Your task to perform on an android device: change your default location settings in chrome Image 0: 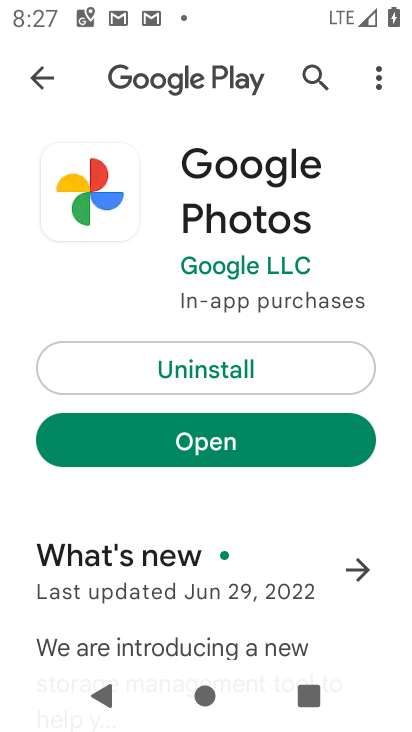
Step 0: press home button
Your task to perform on an android device: change your default location settings in chrome Image 1: 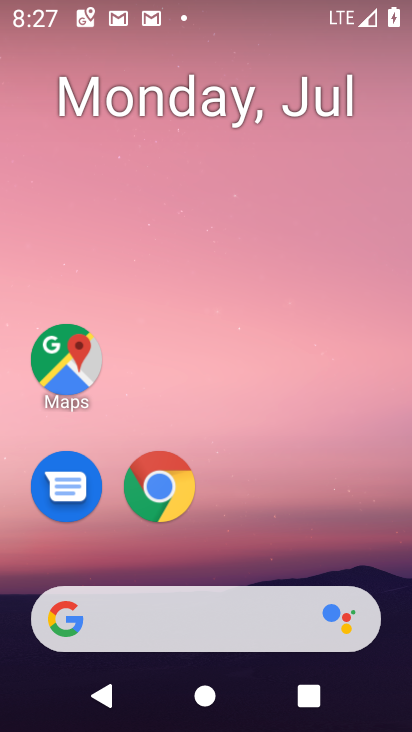
Step 1: drag from (370, 525) to (346, 133)
Your task to perform on an android device: change your default location settings in chrome Image 2: 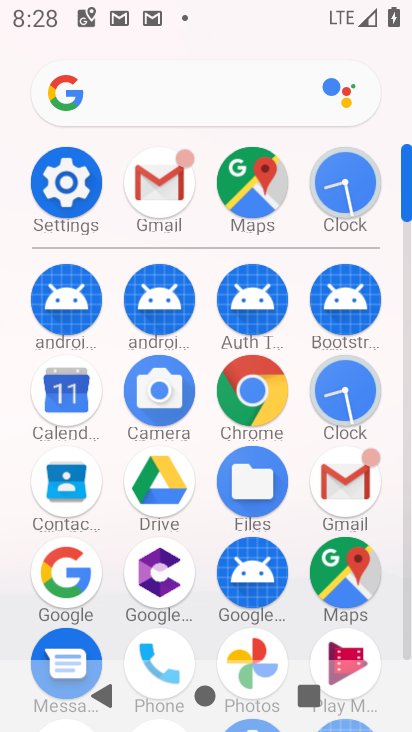
Step 2: click (266, 378)
Your task to perform on an android device: change your default location settings in chrome Image 3: 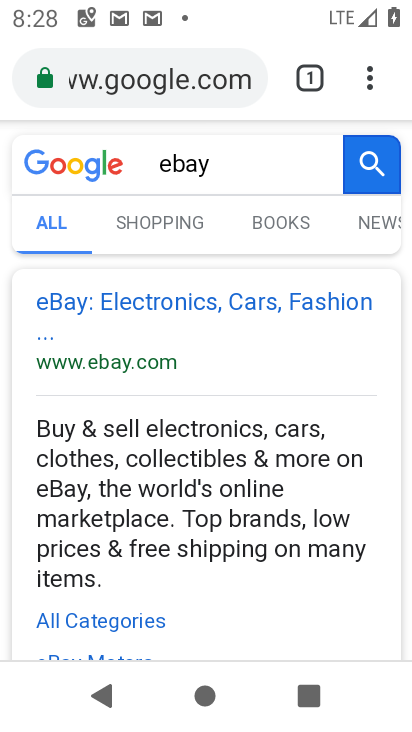
Step 3: click (369, 82)
Your task to perform on an android device: change your default location settings in chrome Image 4: 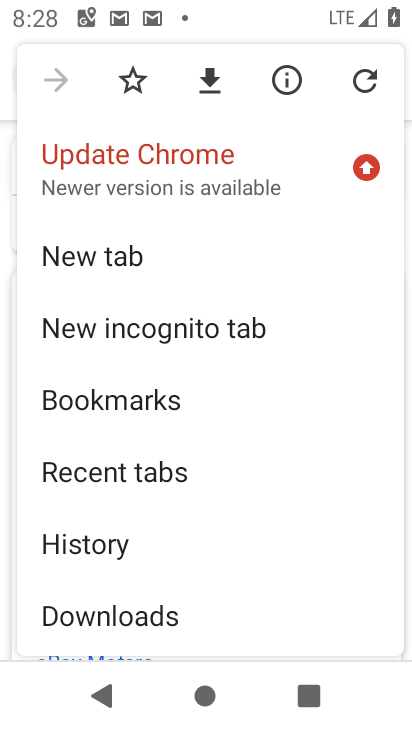
Step 4: drag from (298, 414) to (304, 324)
Your task to perform on an android device: change your default location settings in chrome Image 5: 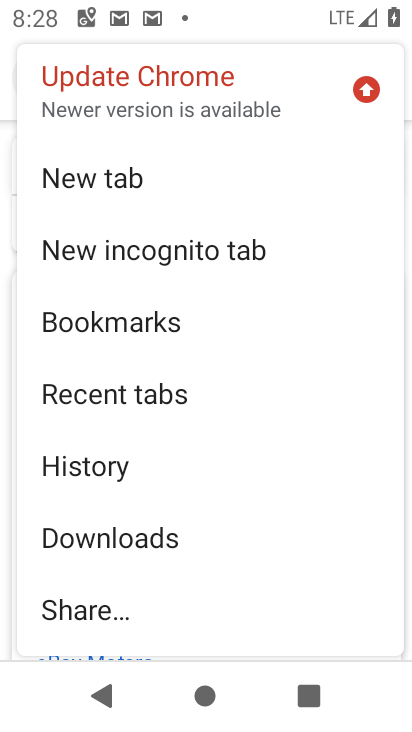
Step 5: drag from (298, 454) to (301, 355)
Your task to perform on an android device: change your default location settings in chrome Image 6: 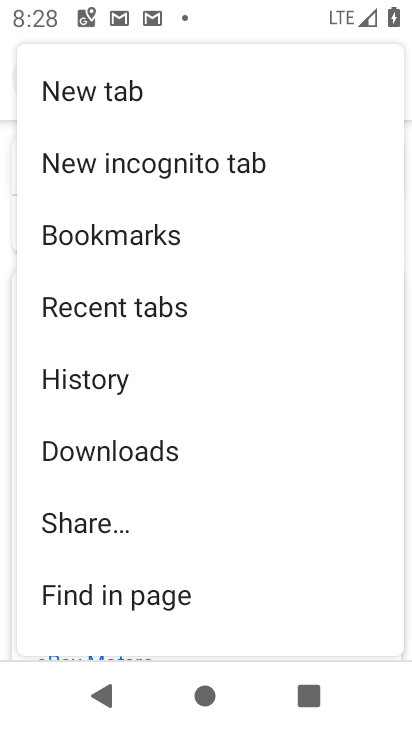
Step 6: drag from (299, 439) to (306, 326)
Your task to perform on an android device: change your default location settings in chrome Image 7: 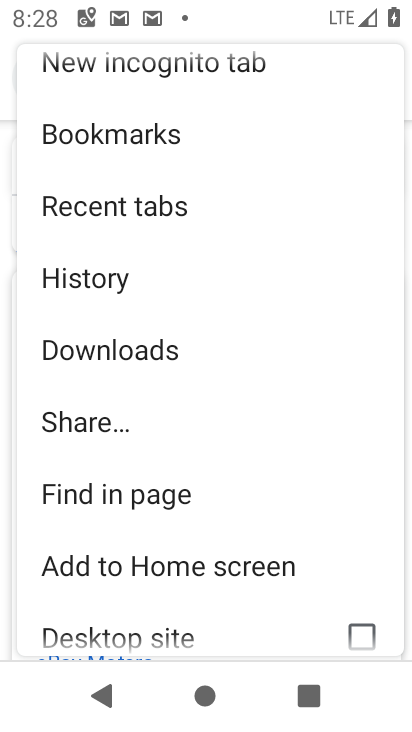
Step 7: drag from (308, 440) to (307, 357)
Your task to perform on an android device: change your default location settings in chrome Image 8: 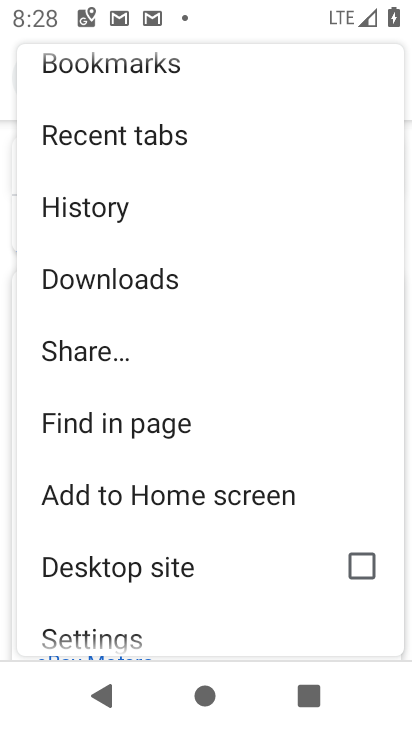
Step 8: drag from (299, 467) to (307, 339)
Your task to perform on an android device: change your default location settings in chrome Image 9: 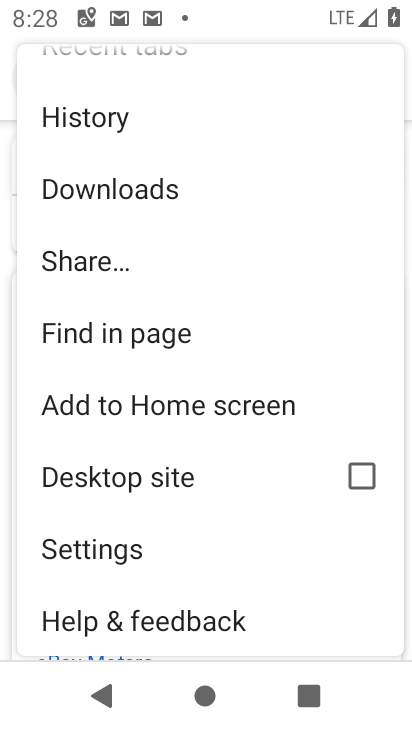
Step 9: drag from (277, 494) to (282, 378)
Your task to perform on an android device: change your default location settings in chrome Image 10: 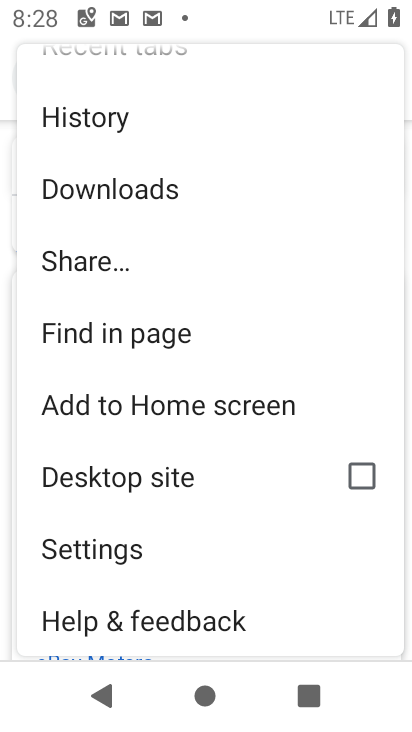
Step 10: click (171, 564)
Your task to perform on an android device: change your default location settings in chrome Image 11: 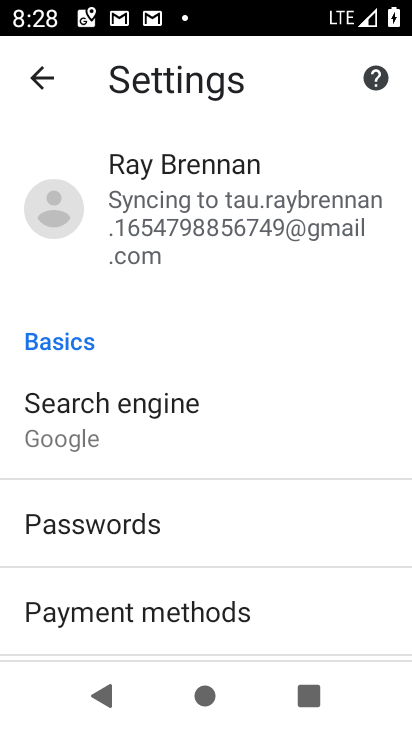
Step 11: drag from (305, 509) to (312, 371)
Your task to perform on an android device: change your default location settings in chrome Image 12: 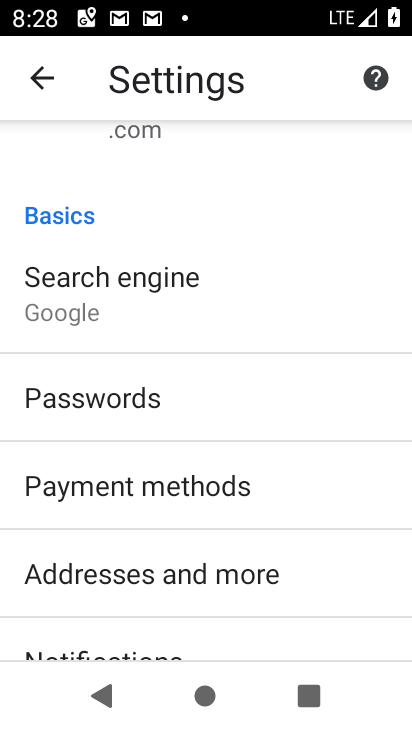
Step 12: drag from (329, 515) to (324, 357)
Your task to perform on an android device: change your default location settings in chrome Image 13: 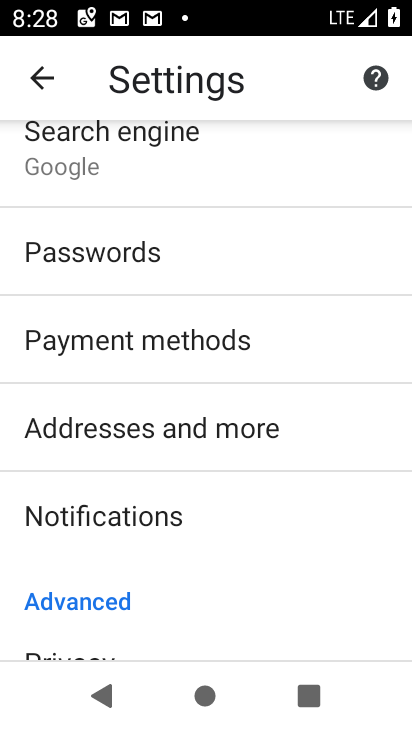
Step 13: drag from (325, 547) to (325, 395)
Your task to perform on an android device: change your default location settings in chrome Image 14: 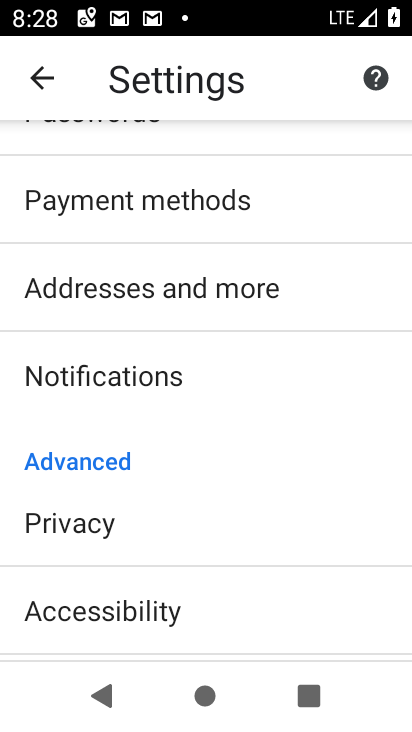
Step 14: drag from (334, 520) to (338, 397)
Your task to perform on an android device: change your default location settings in chrome Image 15: 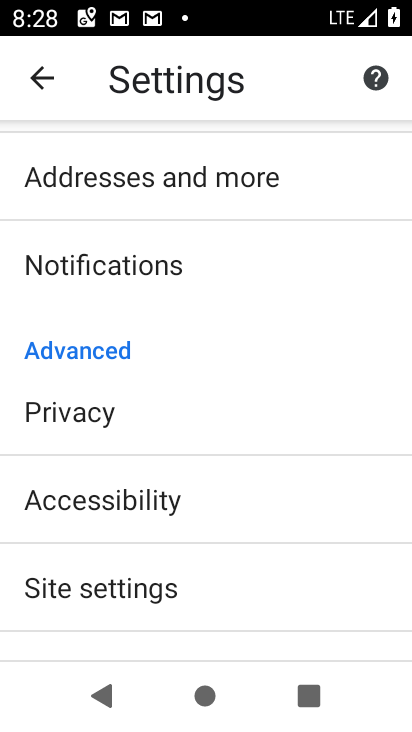
Step 15: drag from (334, 550) to (330, 348)
Your task to perform on an android device: change your default location settings in chrome Image 16: 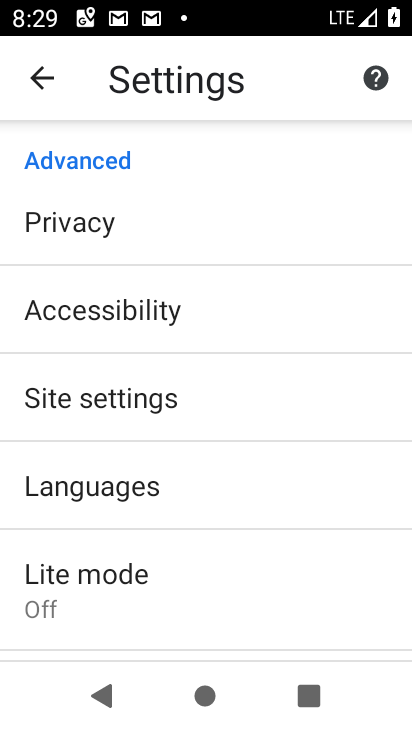
Step 16: drag from (328, 566) to (303, 362)
Your task to perform on an android device: change your default location settings in chrome Image 17: 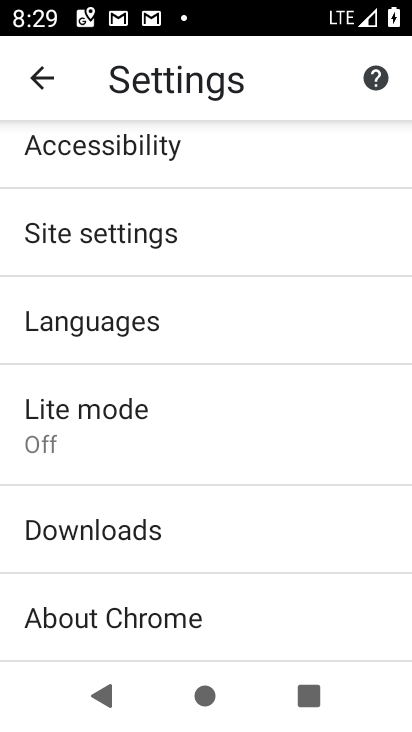
Step 17: drag from (308, 565) to (314, 364)
Your task to perform on an android device: change your default location settings in chrome Image 18: 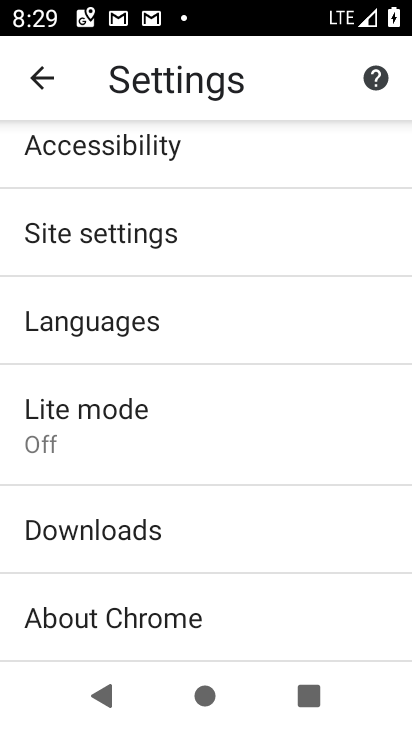
Step 18: drag from (320, 255) to (321, 396)
Your task to perform on an android device: change your default location settings in chrome Image 19: 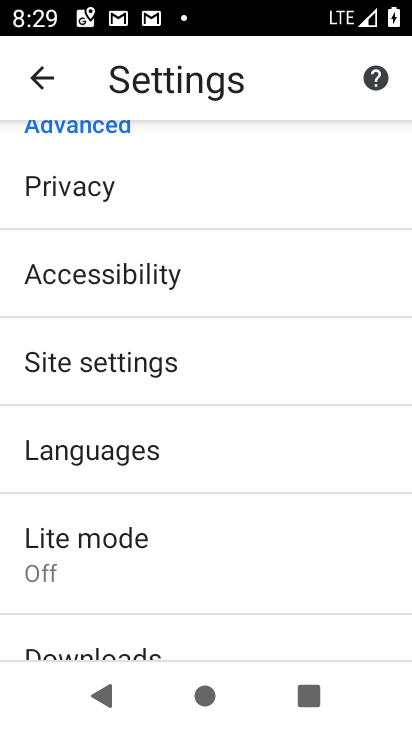
Step 19: drag from (301, 197) to (304, 364)
Your task to perform on an android device: change your default location settings in chrome Image 20: 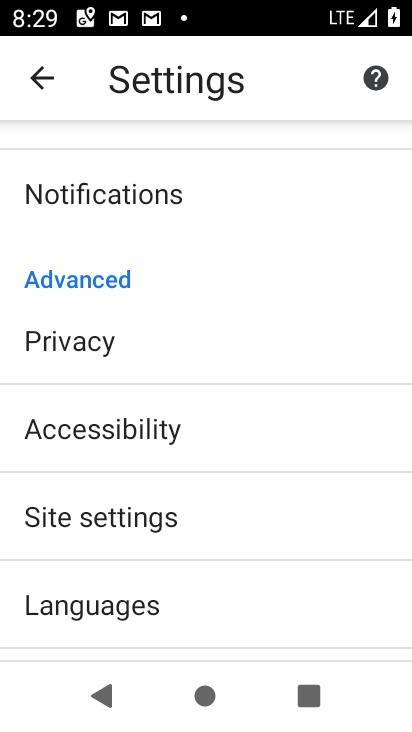
Step 20: drag from (299, 204) to (310, 357)
Your task to perform on an android device: change your default location settings in chrome Image 21: 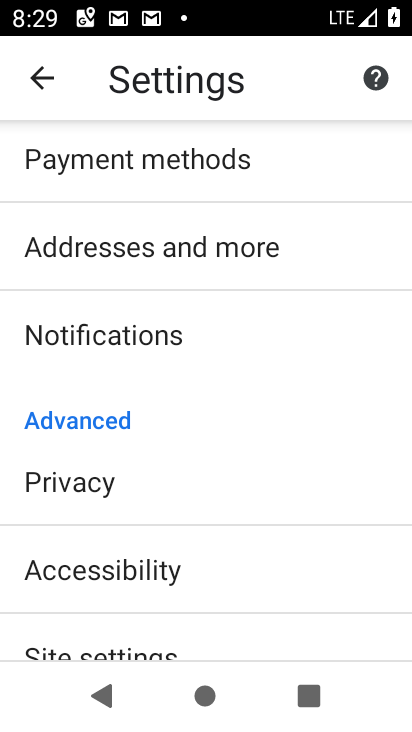
Step 21: drag from (314, 167) to (320, 338)
Your task to perform on an android device: change your default location settings in chrome Image 22: 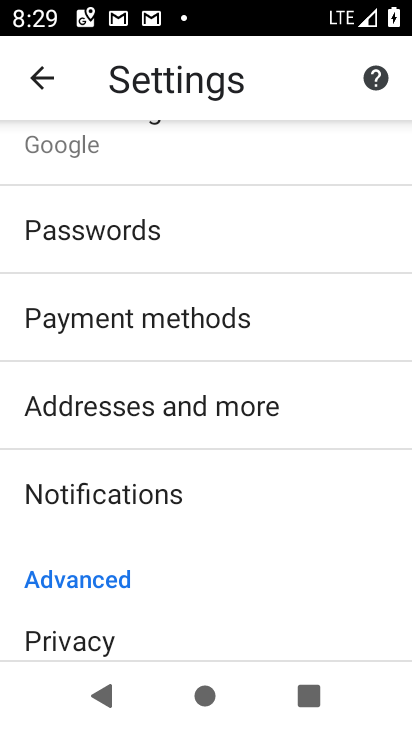
Step 22: drag from (315, 208) to (318, 371)
Your task to perform on an android device: change your default location settings in chrome Image 23: 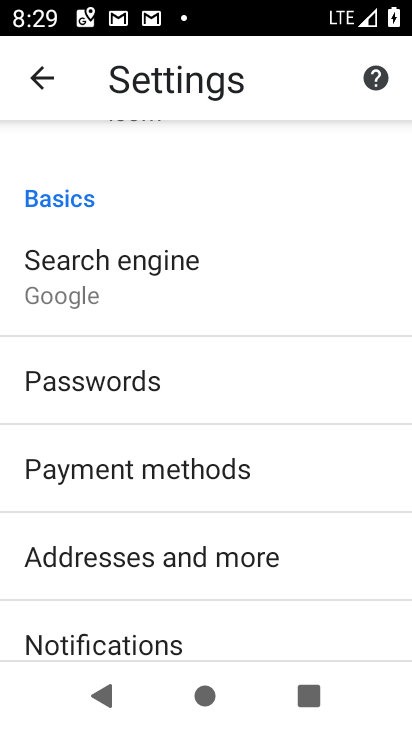
Step 23: drag from (319, 486) to (316, 336)
Your task to perform on an android device: change your default location settings in chrome Image 24: 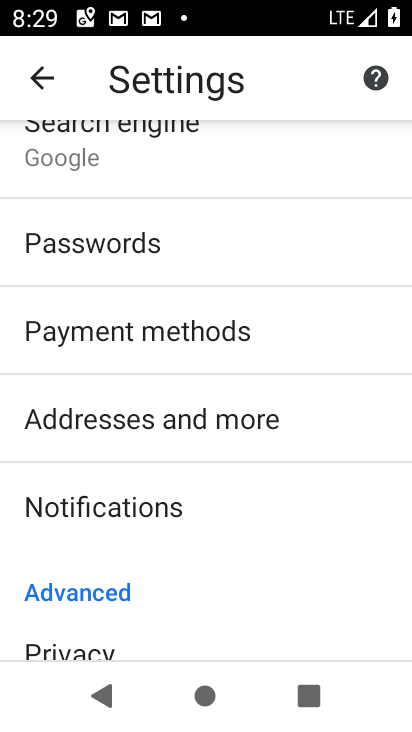
Step 24: drag from (336, 509) to (339, 360)
Your task to perform on an android device: change your default location settings in chrome Image 25: 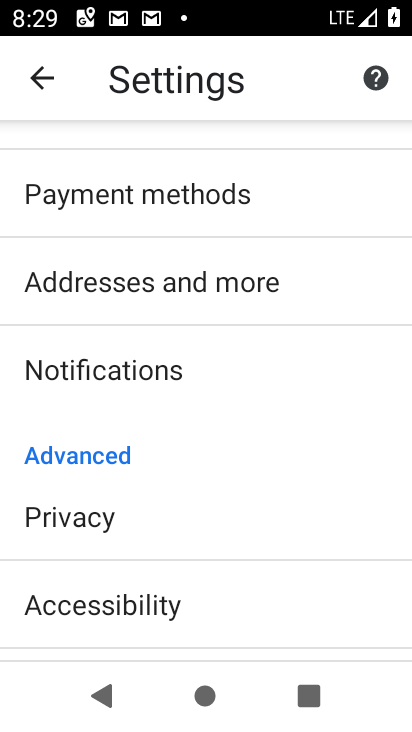
Step 25: drag from (336, 487) to (333, 374)
Your task to perform on an android device: change your default location settings in chrome Image 26: 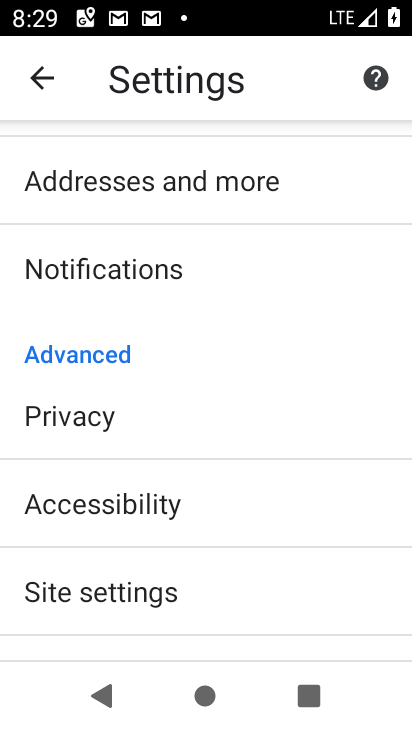
Step 26: drag from (328, 511) to (322, 386)
Your task to perform on an android device: change your default location settings in chrome Image 27: 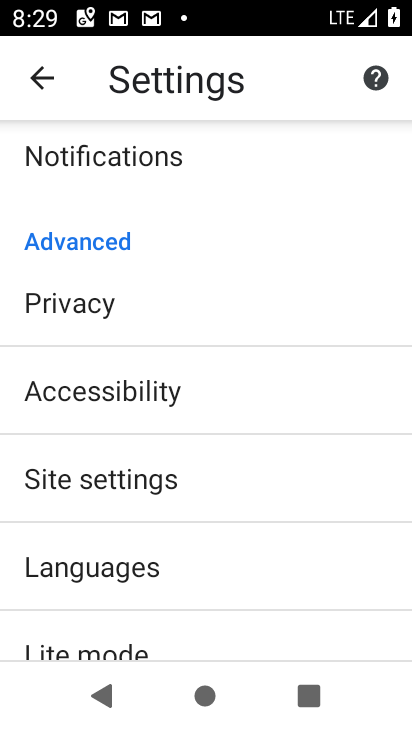
Step 27: click (300, 499)
Your task to perform on an android device: change your default location settings in chrome Image 28: 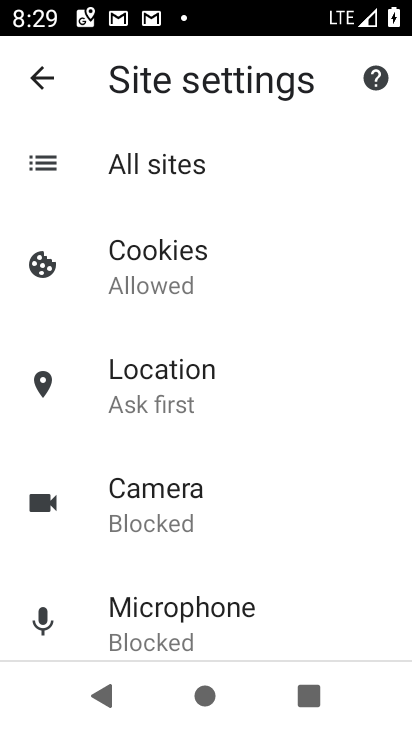
Step 28: click (237, 366)
Your task to perform on an android device: change your default location settings in chrome Image 29: 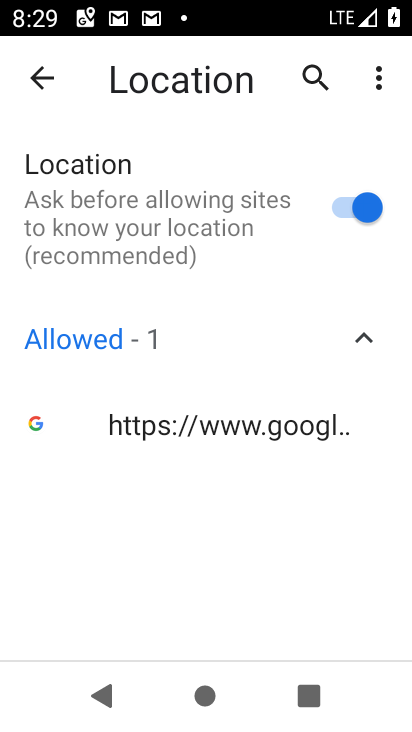
Step 29: click (364, 202)
Your task to perform on an android device: change your default location settings in chrome Image 30: 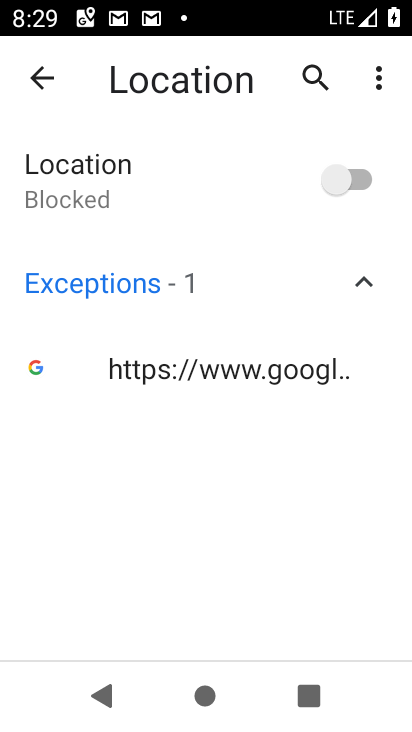
Step 30: task complete